Your task to perform on an android device: Open Google Chrome Image 0: 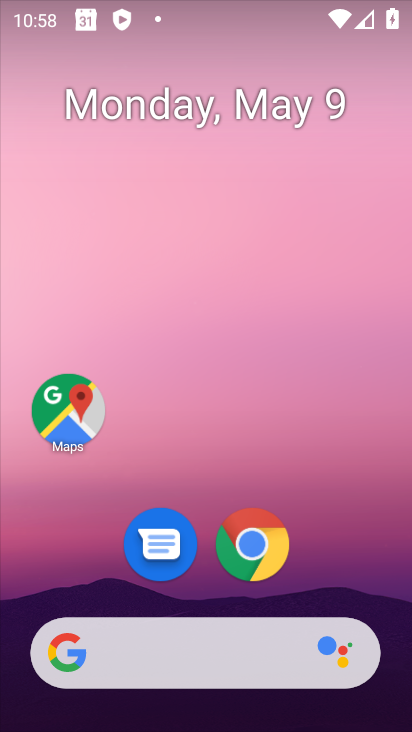
Step 0: click (245, 547)
Your task to perform on an android device: Open Google Chrome Image 1: 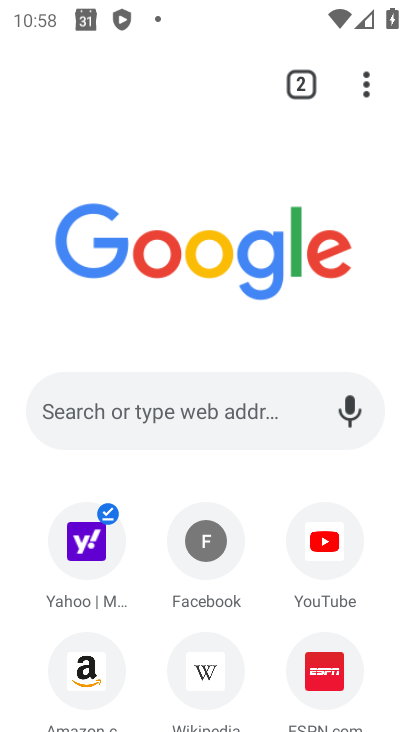
Step 1: task complete